Your task to perform on an android device: Open notification settings Image 0: 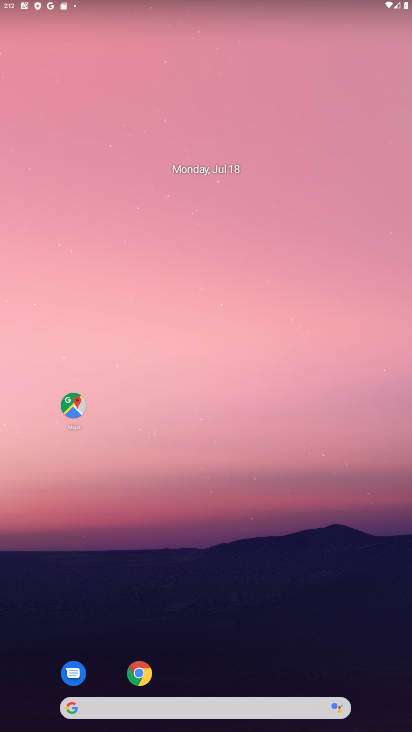
Step 0: drag from (197, 699) to (172, 111)
Your task to perform on an android device: Open notification settings Image 1: 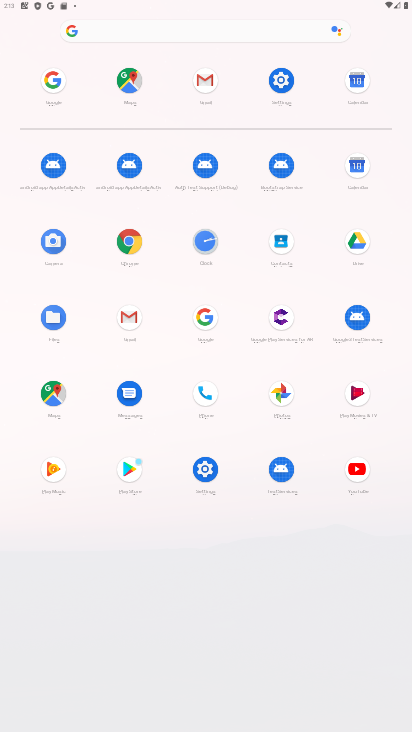
Step 1: click (281, 81)
Your task to perform on an android device: Open notification settings Image 2: 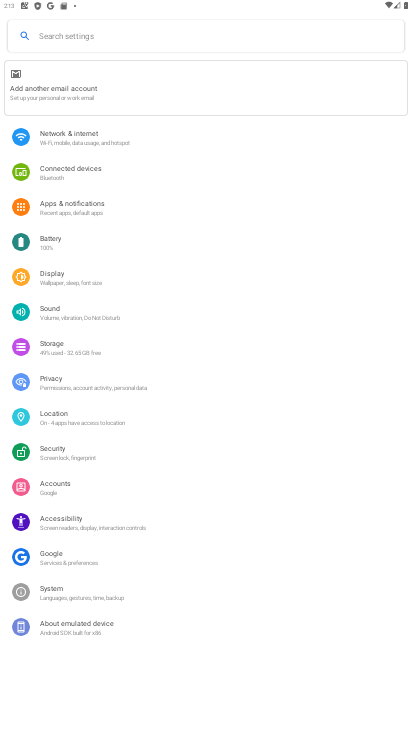
Step 2: click (77, 216)
Your task to perform on an android device: Open notification settings Image 3: 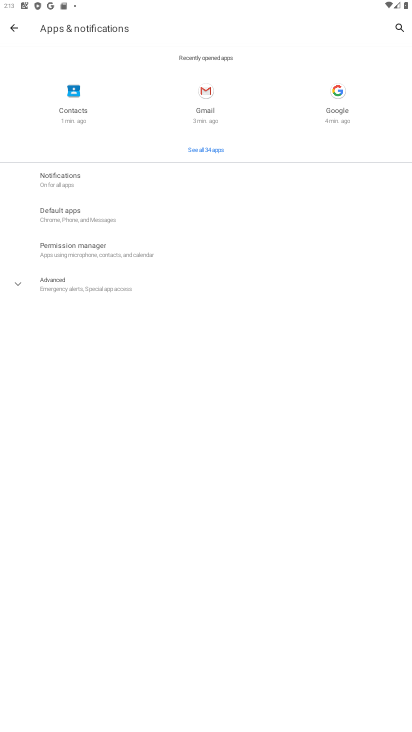
Step 3: click (77, 177)
Your task to perform on an android device: Open notification settings Image 4: 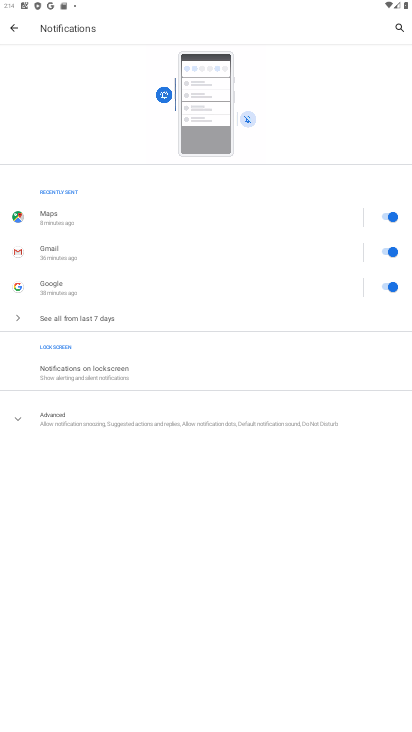
Step 4: task complete